Your task to perform on an android device: toggle show notifications on the lock screen Image 0: 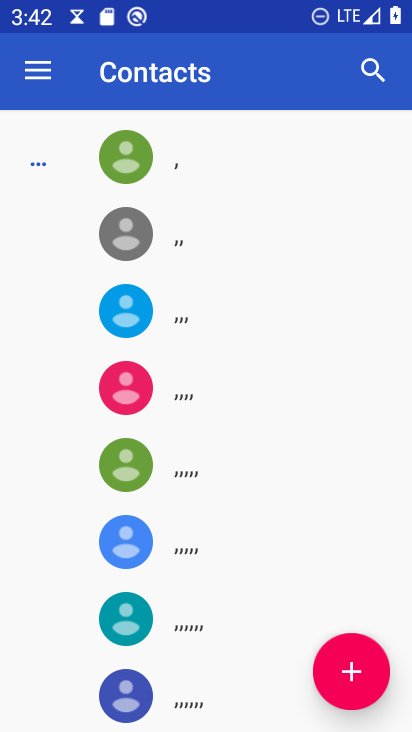
Step 0: press home button
Your task to perform on an android device: toggle show notifications on the lock screen Image 1: 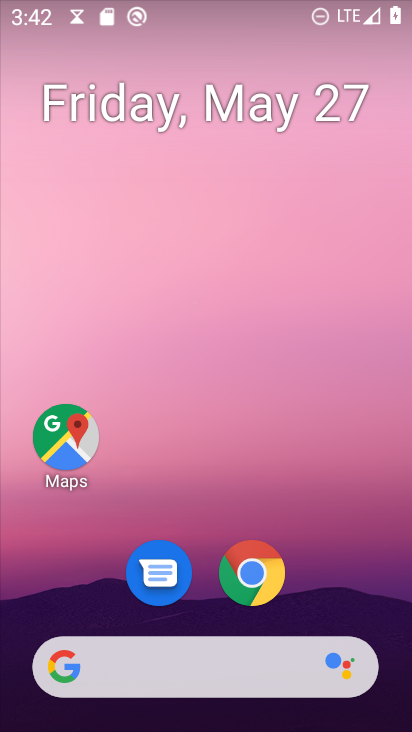
Step 1: drag from (313, 605) to (327, 69)
Your task to perform on an android device: toggle show notifications on the lock screen Image 2: 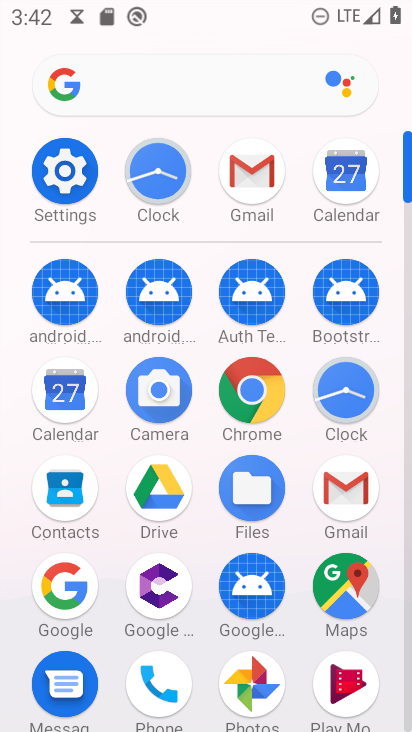
Step 2: click (62, 179)
Your task to perform on an android device: toggle show notifications on the lock screen Image 3: 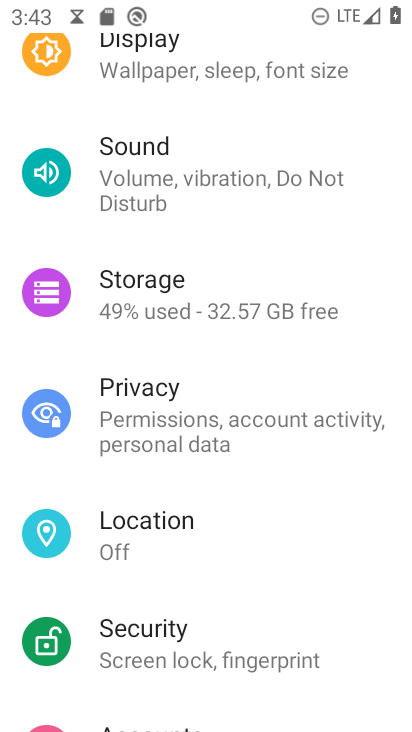
Step 3: drag from (231, 356) to (261, 683)
Your task to perform on an android device: toggle show notifications on the lock screen Image 4: 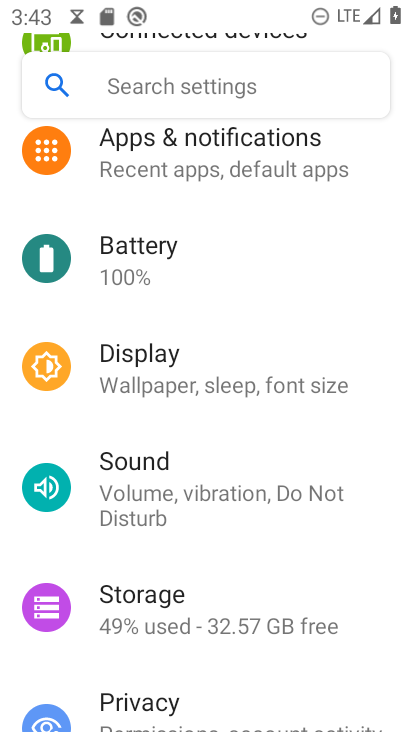
Step 4: click (253, 155)
Your task to perform on an android device: toggle show notifications on the lock screen Image 5: 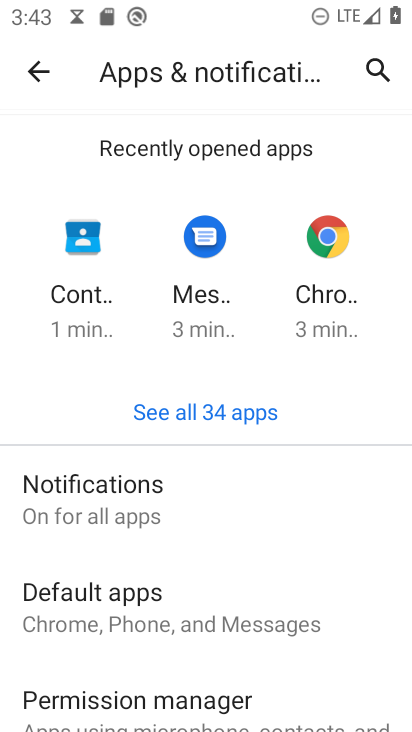
Step 5: click (120, 476)
Your task to perform on an android device: toggle show notifications on the lock screen Image 6: 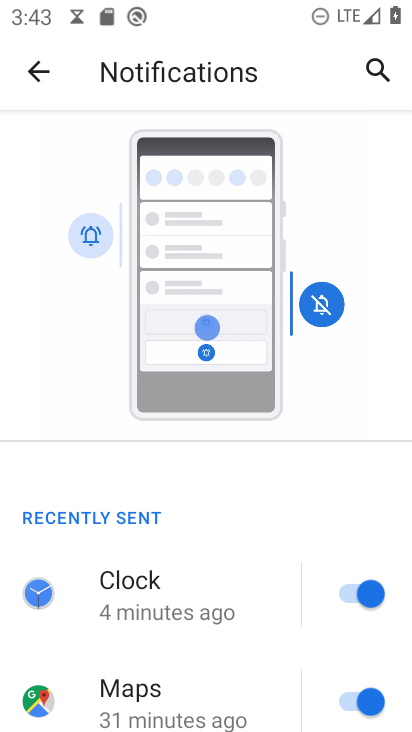
Step 6: drag from (143, 666) to (291, 275)
Your task to perform on an android device: toggle show notifications on the lock screen Image 7: 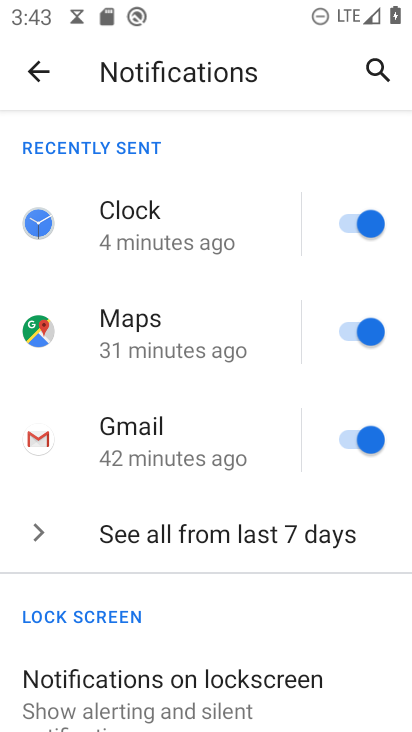
Step 7: click (183, 696)
Your task to perform on an android device: toggle show notifications on the lock screen Image 8: 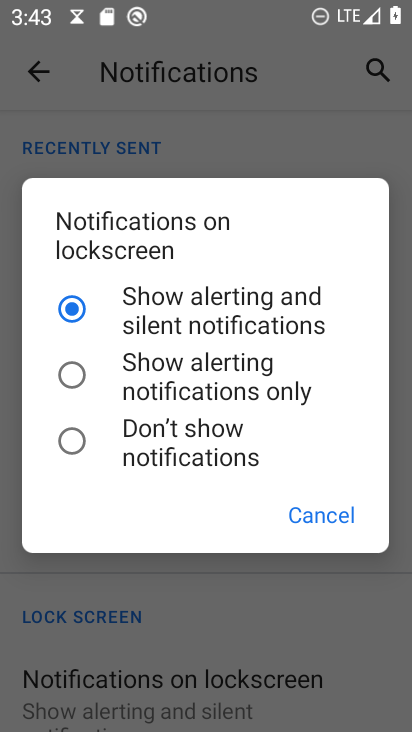
Step 8: click (158, 370)
Your task to perform on an android device: toggle show notifications on the lock screen Image 9: 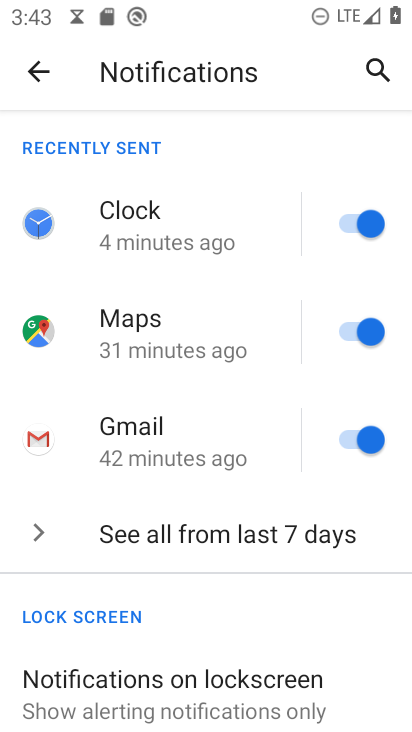
Step 9: task complete